Your task to perform on an android device: What's on my calendar tomorrow? Image 0: 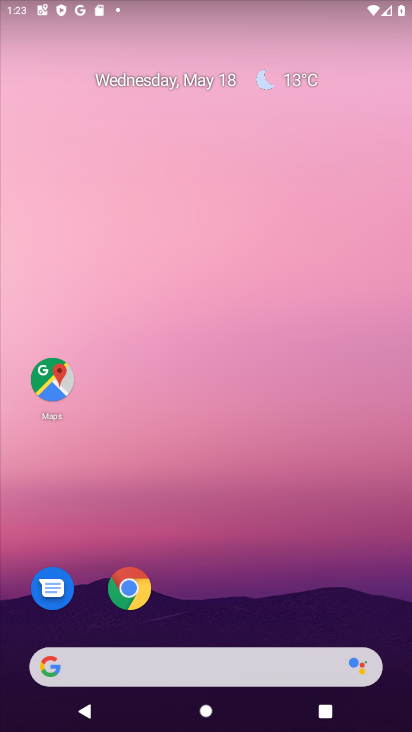
Step 0: drag from (199, 631) to (265, 163)
Your task to perform on an android device: What's on my calendar tomorrow? Image 1: 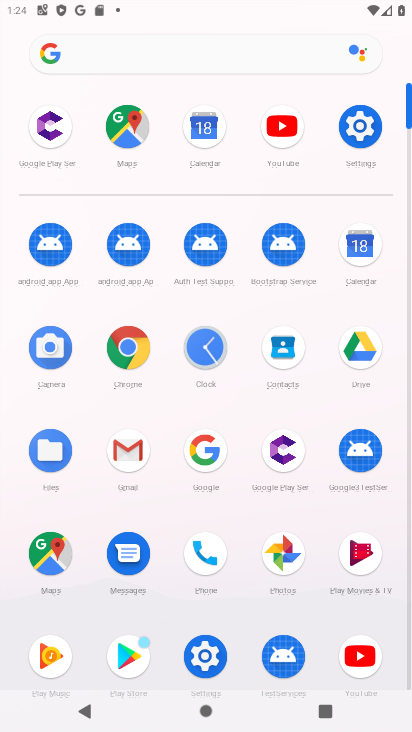
Step 1: click (356, 242)
Your task to perform on an android device: What's on my calendar tomorrow? Image 2: 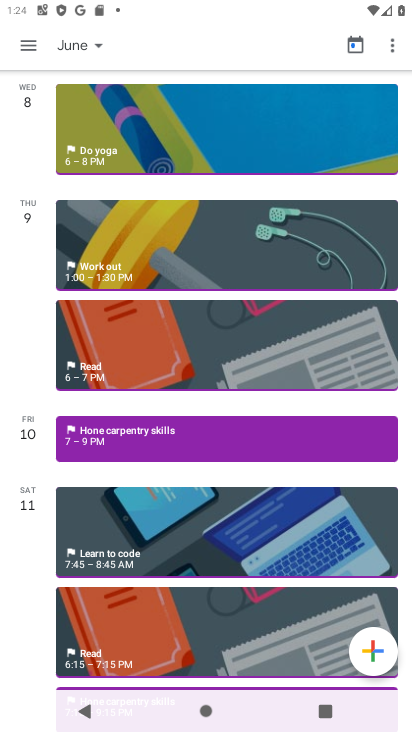
Step 2: click (113, 44)
Your task to perform on an android device: What's on my calendar tomorrow? Image 3: 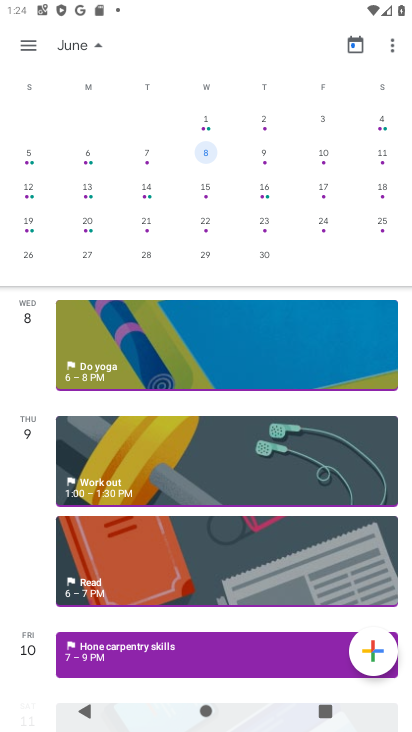
Step 3: drag from (42, 184) to (409, 131)
Your task to perform on an android device: What's on my calendar tomorrow? Image 4: 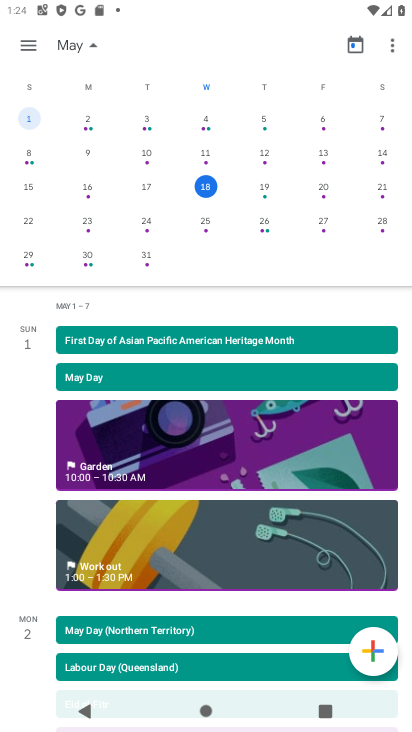
Step 4: click (205, 191)
Your task to perform on an android device: What's on my calendar tomorrow? Image 5: 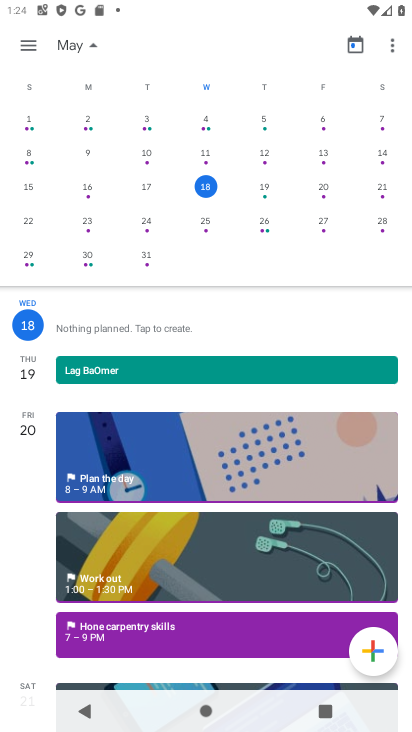
Step 5: click (264, 191)
Your task to perform on an android device: What's on my calendar tomorrow? Image 6: 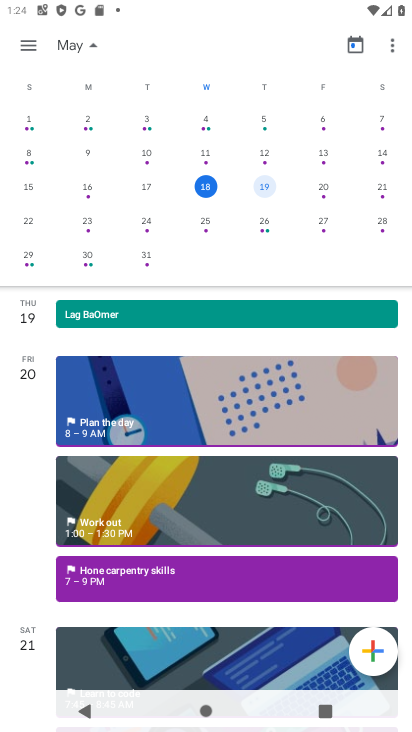
Step 6: task complete